Your task to perform on an android device: toggle wifi Image 0: 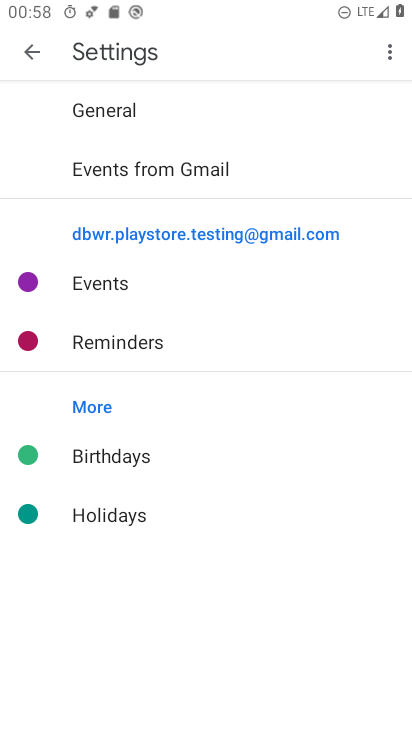
Step 0: press home button
Your task to perform on an android device: toggle wifi Image 1: 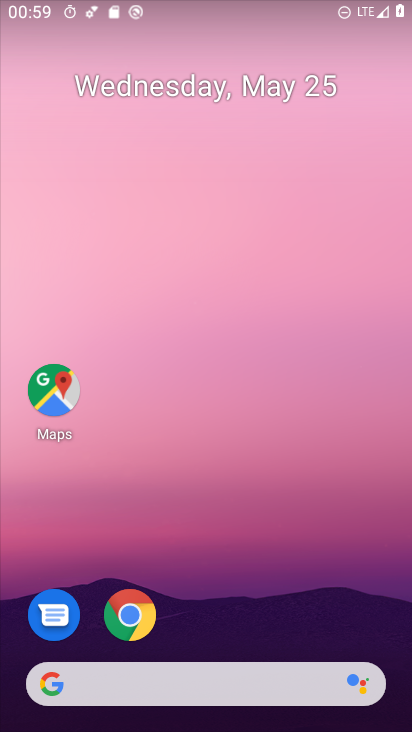
Step 1: drag from (320, 712) to (392, 122)
Your task to perform on an android device: toggle wifi Image 2: 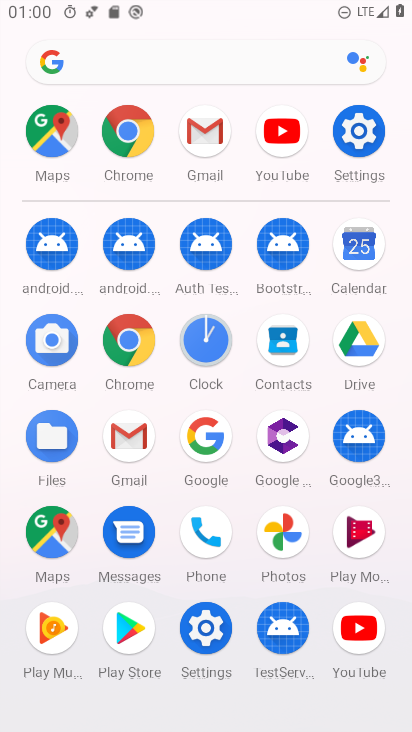
Step 2: click (340, 129)
Your task to perform on an android device: toggle wifi Image 3: 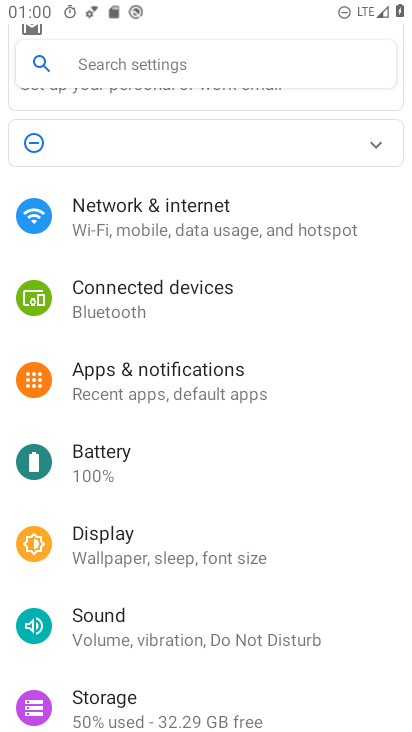
Step 3: click (190, 209)
Your task to perform on an android device: toggle wifi Image 4: 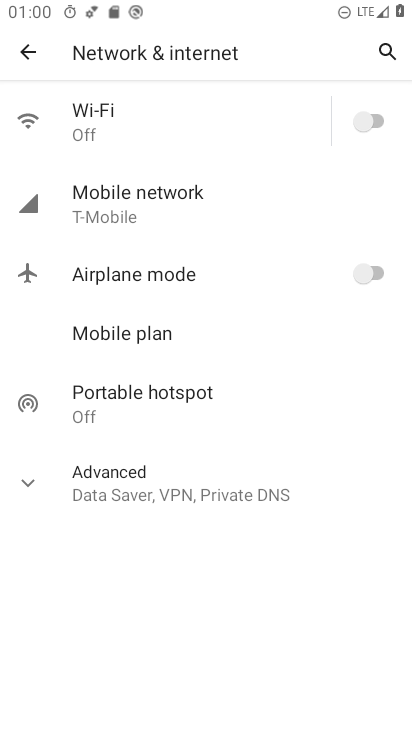
Step 4: task complete